Your task to perform on an android device: Open ESPN.com Image 0: 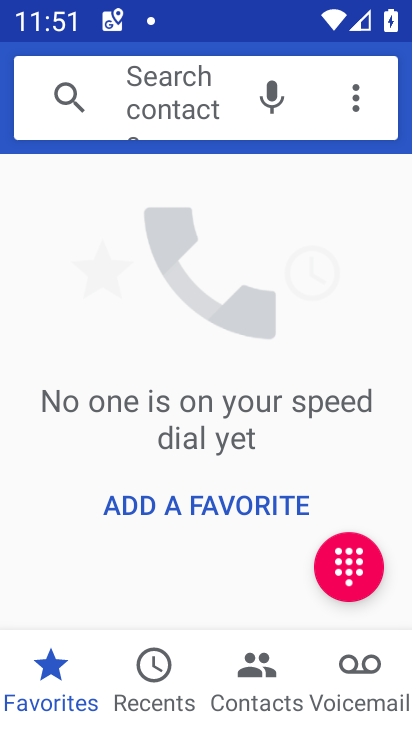
Step 0: press home button
Your task to perform on an android device: Open ESPN.com Image 1: 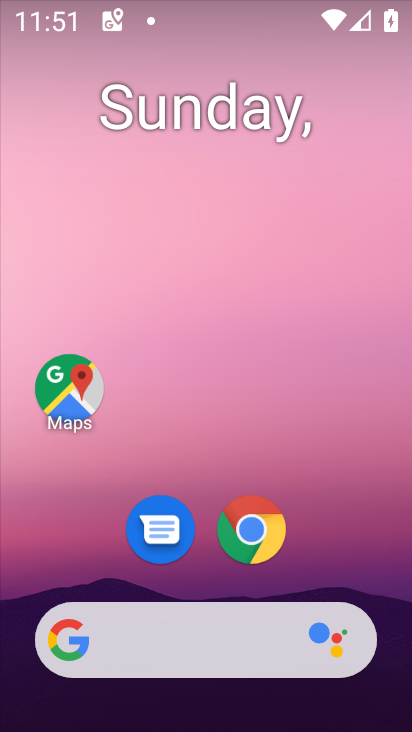
Step 1: drag from (350, 569) to (346, 135)
Your task to perform on an android device: Open ESPN.com Image 2: 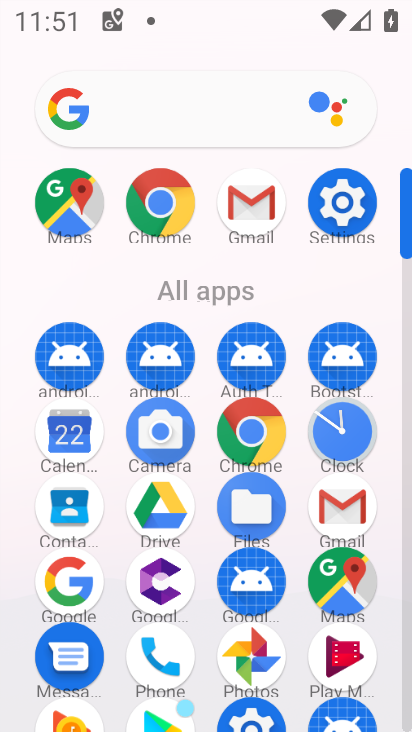
Step 2: click (242, 443)
Your task to perform on an android device: Open ESPN.com Image 3: 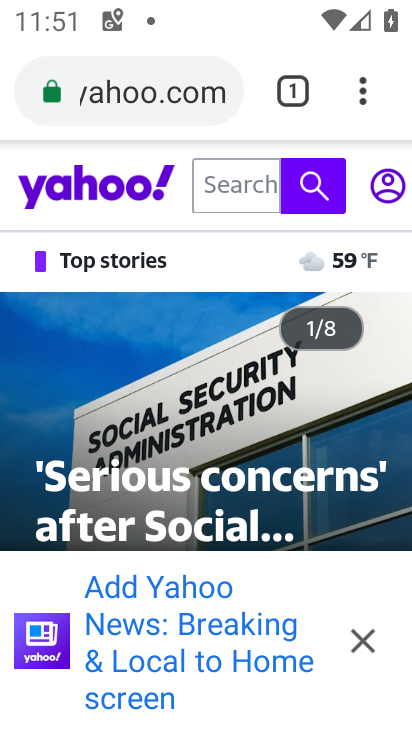
Step 3: press back button
Your task to perform on an android device: Open ESPN.com Image 4: 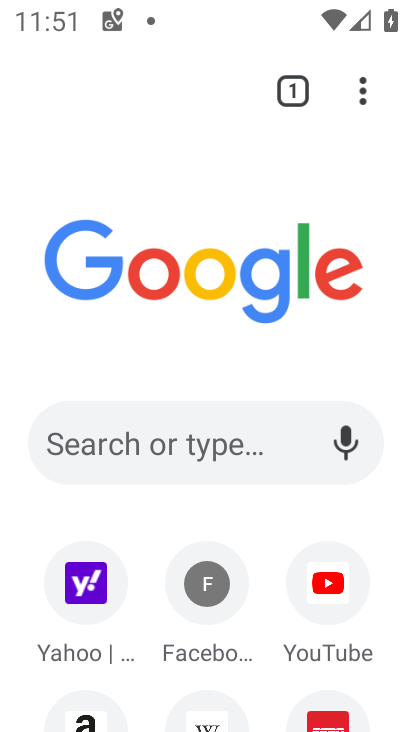
Step 4: drag from (254, 636) to (261, 455)
Your task to perform on an android device: Open ESPN.com Image 5: 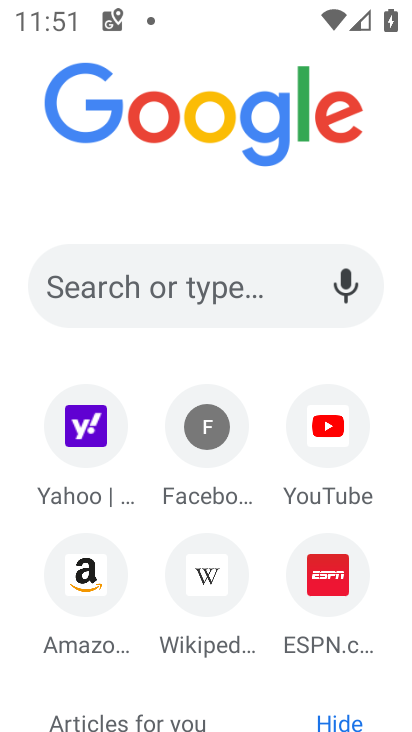
Step 5: click (320, 613)
Your task to perform on an android device: Open ESPN.com Image 6: 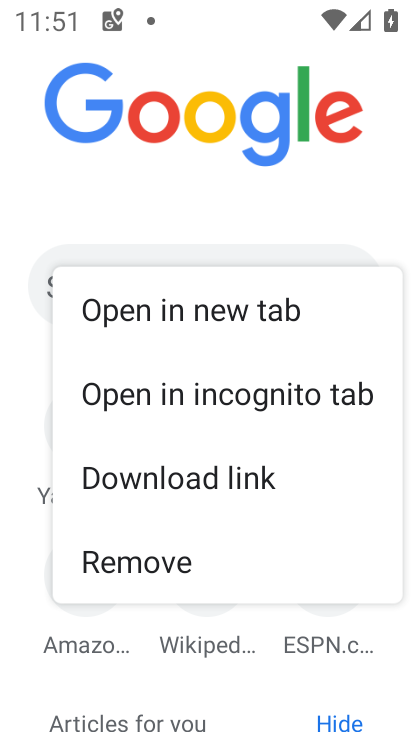
Step 6: click (321, 618)
Your task to perform on an android device: Open ESPN.com Image 7: 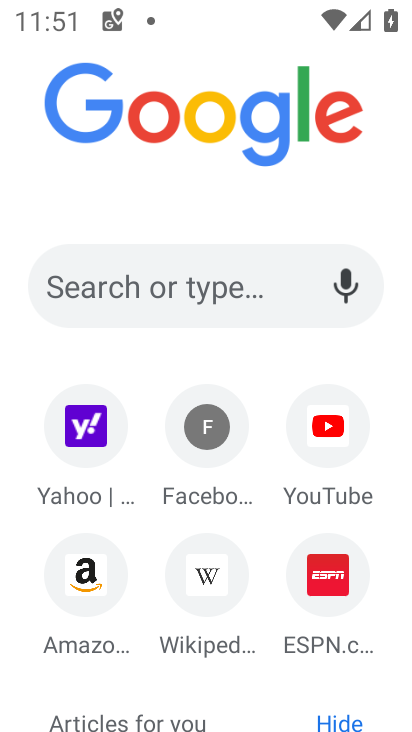
Step 7: click (356, 569)
Your task to perform on an android device: Open ESPN.com Image 8: 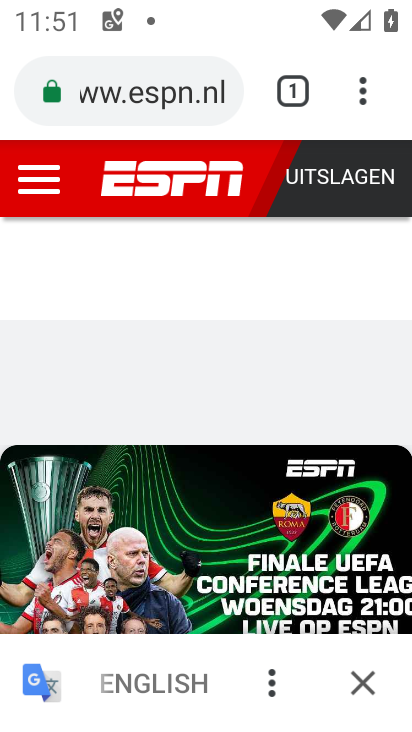
Step 8: task complete